Your task to perform on an android device: change the clock style Image 0: 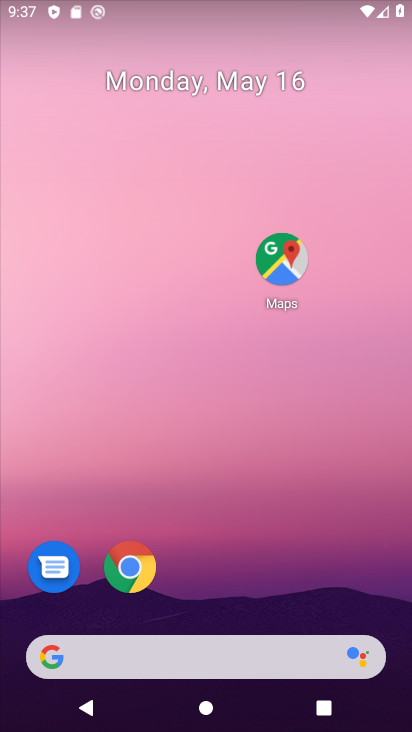
Step 0: drag from (231, 540) to (171, 85)
Your task to perform on an android device: change the clock style Image 1: 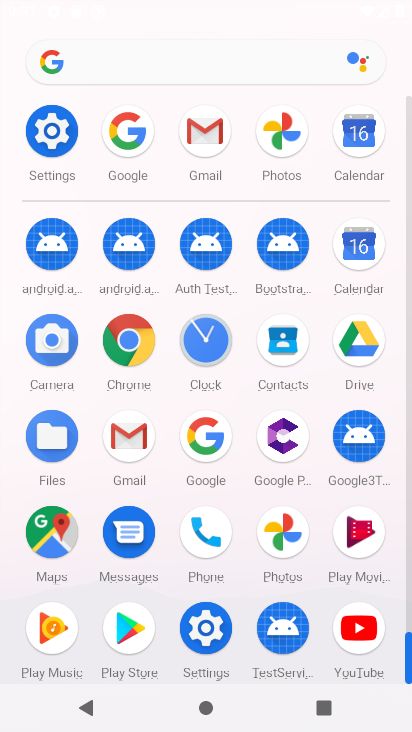
Step 1: click (206, 341)
Your task to perform on an android device: change the clock style Image 2: 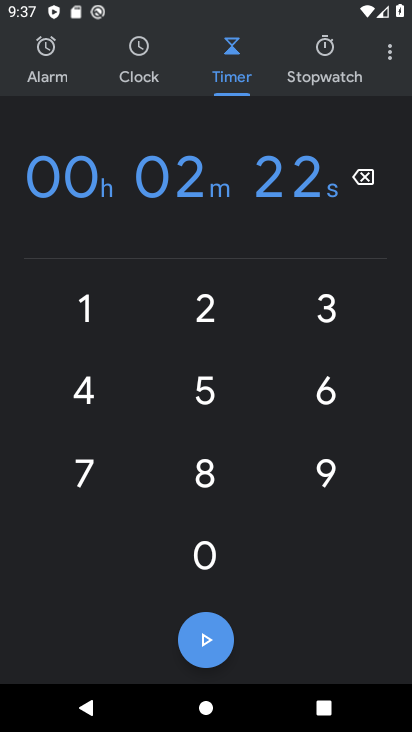
Step 2: click (381, 55)
Your task to perform on an android device: change the clock style Image 3: 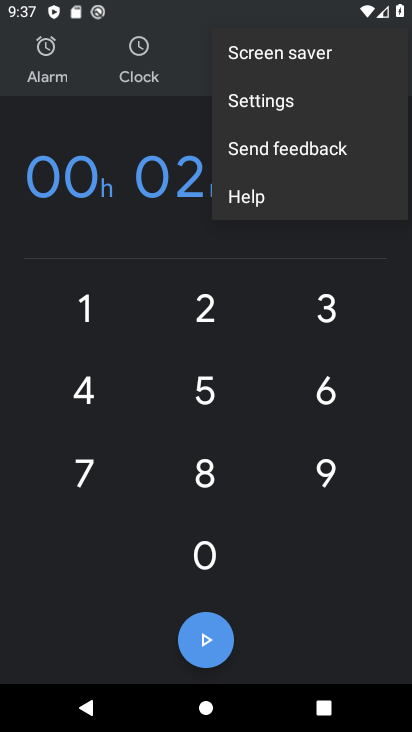
Step 3: click (256, 99)
Your task to perform on an android device: change the clock style Image 4: 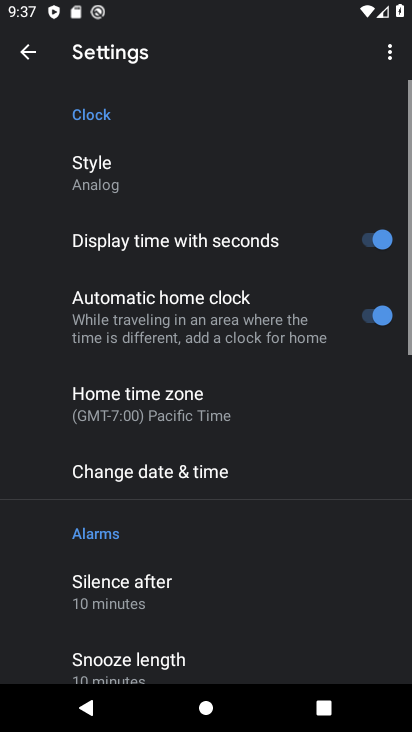
Step 4: click (123, 166)
Your task to perform on an android device: change the clock style Image 5: 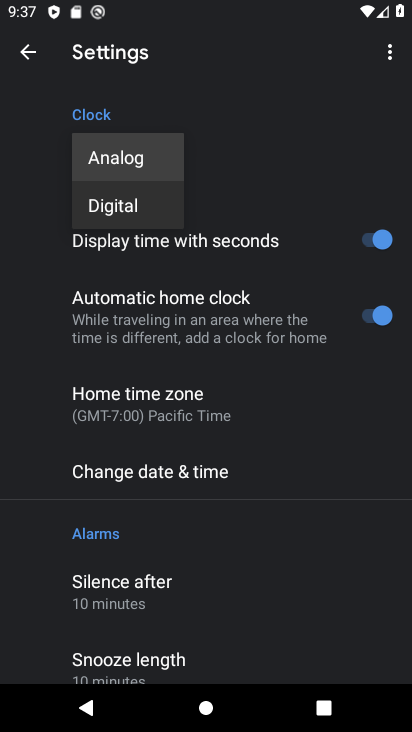
Step 5: click (121, 200)
Your task to perform on an android device: change the clock style Image 6: 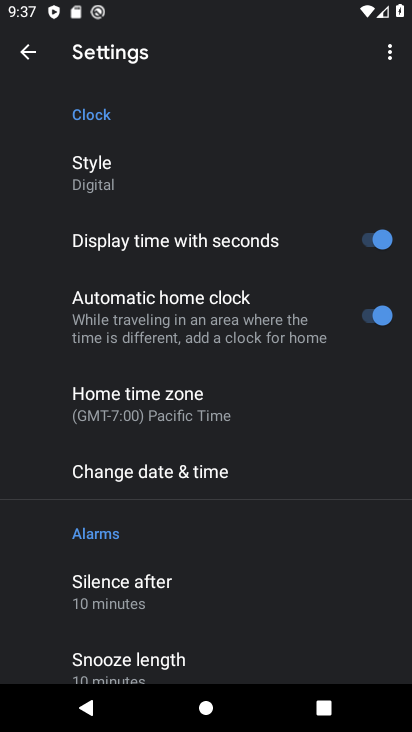
Step 6: task complete